Your task to perform on an android device: Show the shopping cart on costco.com. Add razer thresher to the cart on costco.com Image 0: 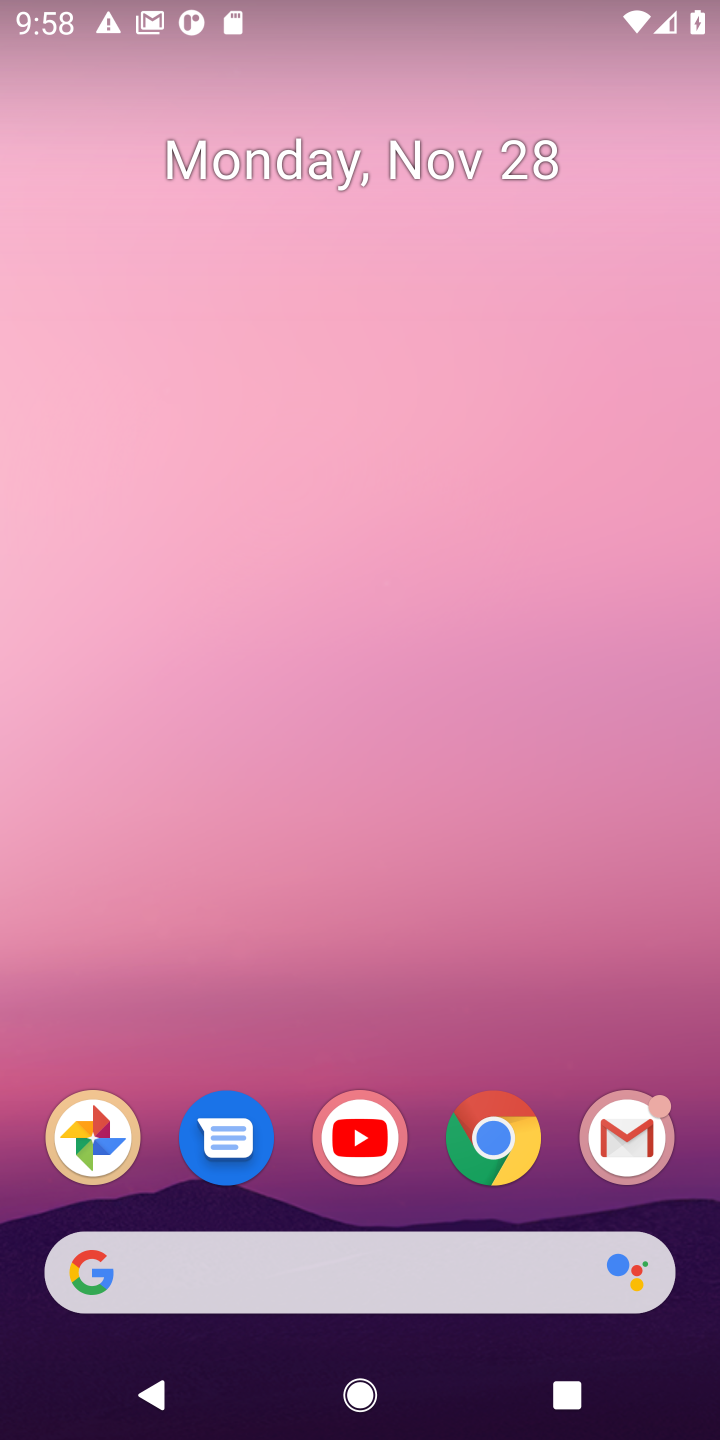
Step 0: click (507, 1129)
Your task to perform on an android device: Show the shopping cart on costco.com. Add razer thresher to the cart on costco.com Image 1: 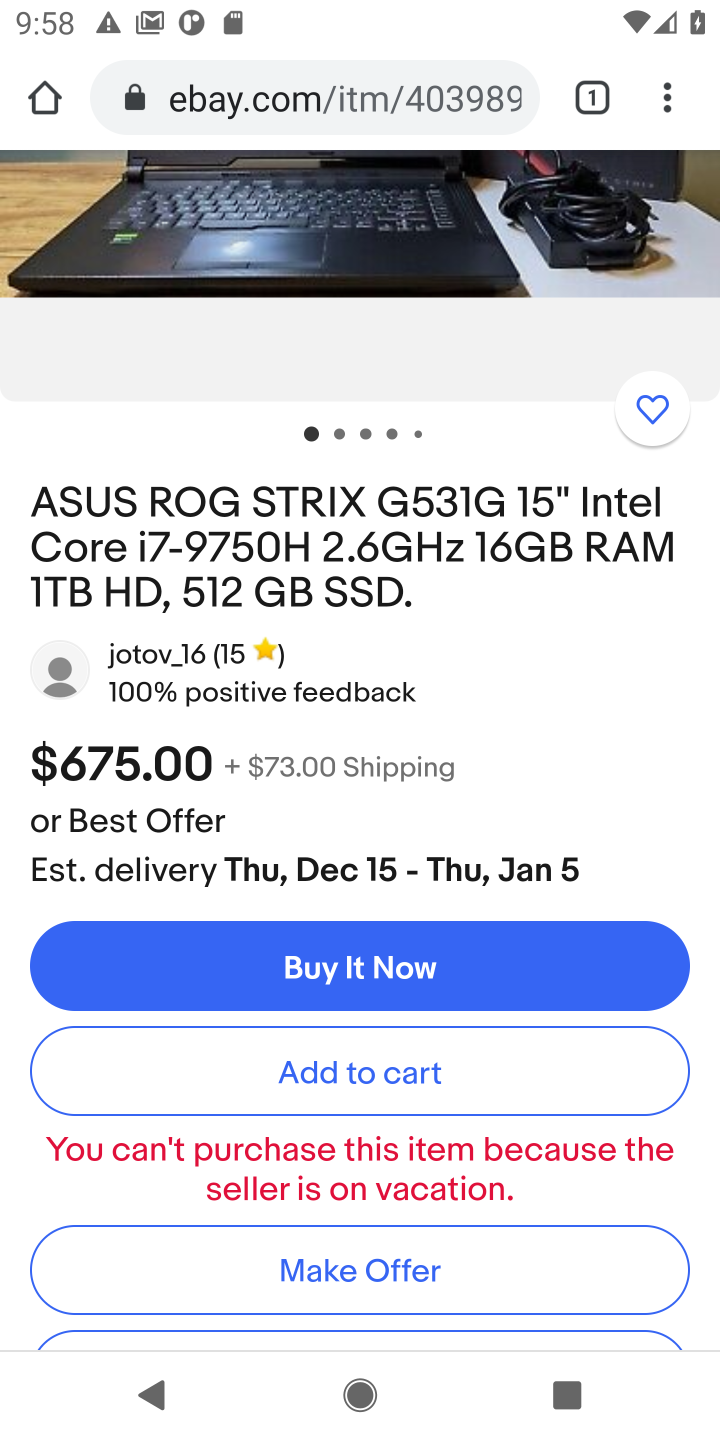
Step 1: click (339, 107)
Your task to perform on an android device: Show the shopping cart on costco.com. Add razer thresher to the cart on costco.com Image 2: 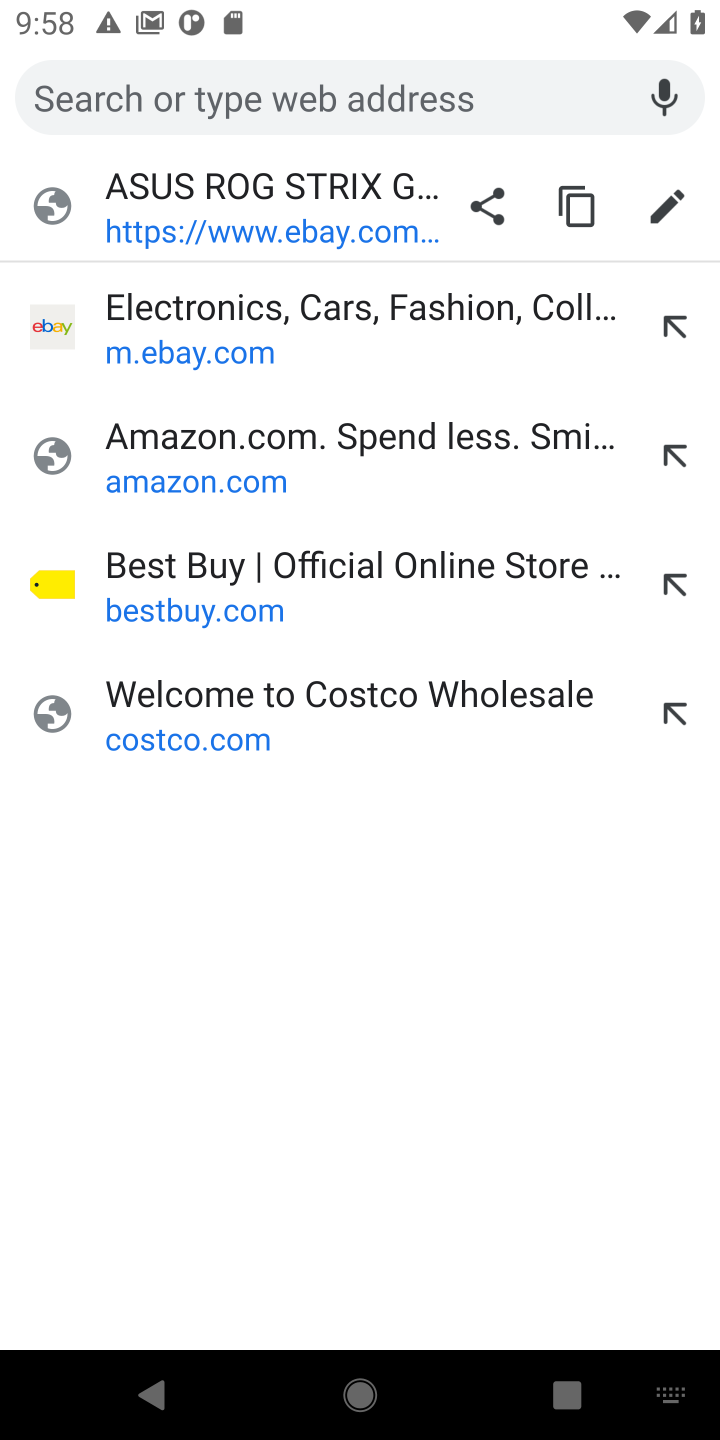
Step 2: click (230, 746)
Your task to perform on an android device: Show the shopping cart on costco.com. Add razer thresher to the cart on costco.com Image 3: 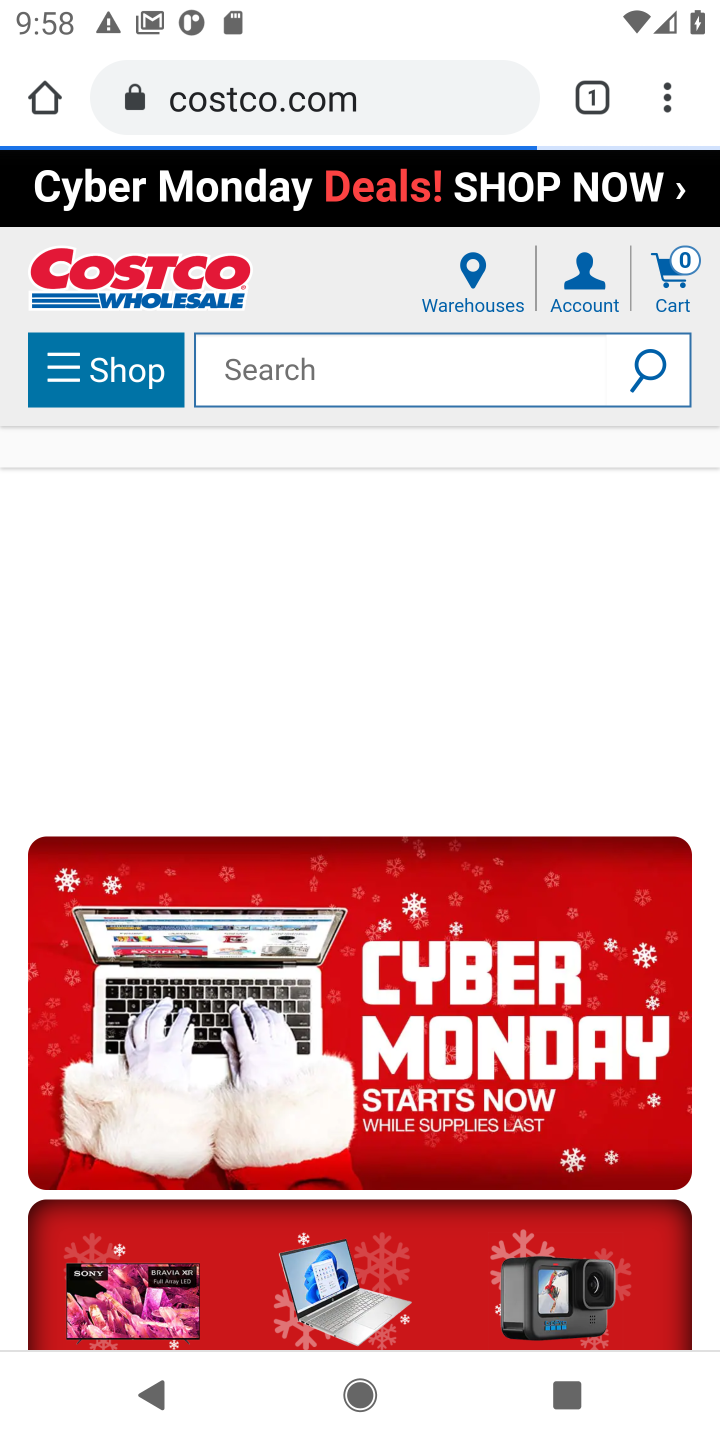
Step 3: click (660, 276)
Your task to perform on an android device: Show the shopping cart on costco.com. Add razer thresher to the cart on costco.com Image 4: 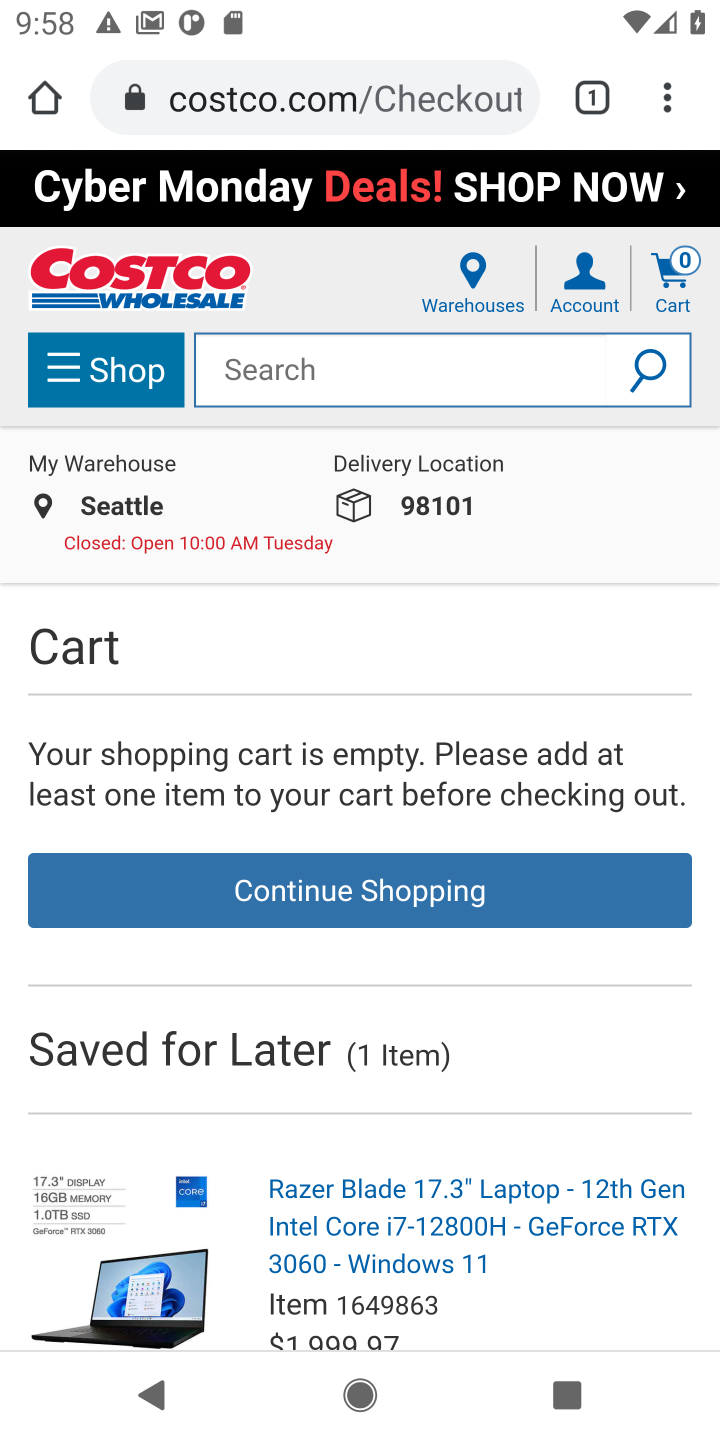
Step 4: click (258, 372)
Your task to perform on an android device: Show the shopping cart on costco.com. Add razer thresher to the cart on costco.com Image 5: 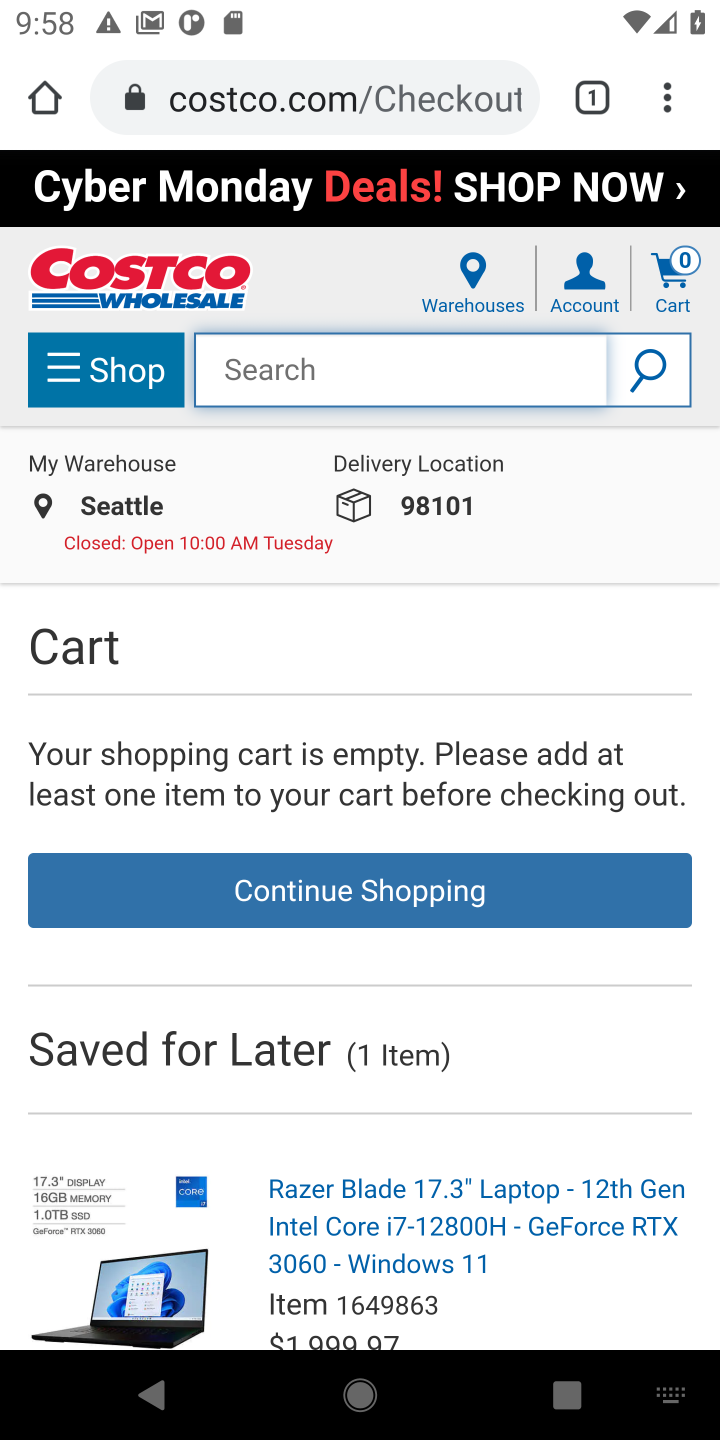
Step 5: type "razer thresher "
Your task to perform on an android device: Show the shopping cart on costco.com. Add razer thresher to the cart on costco.com Image 6: 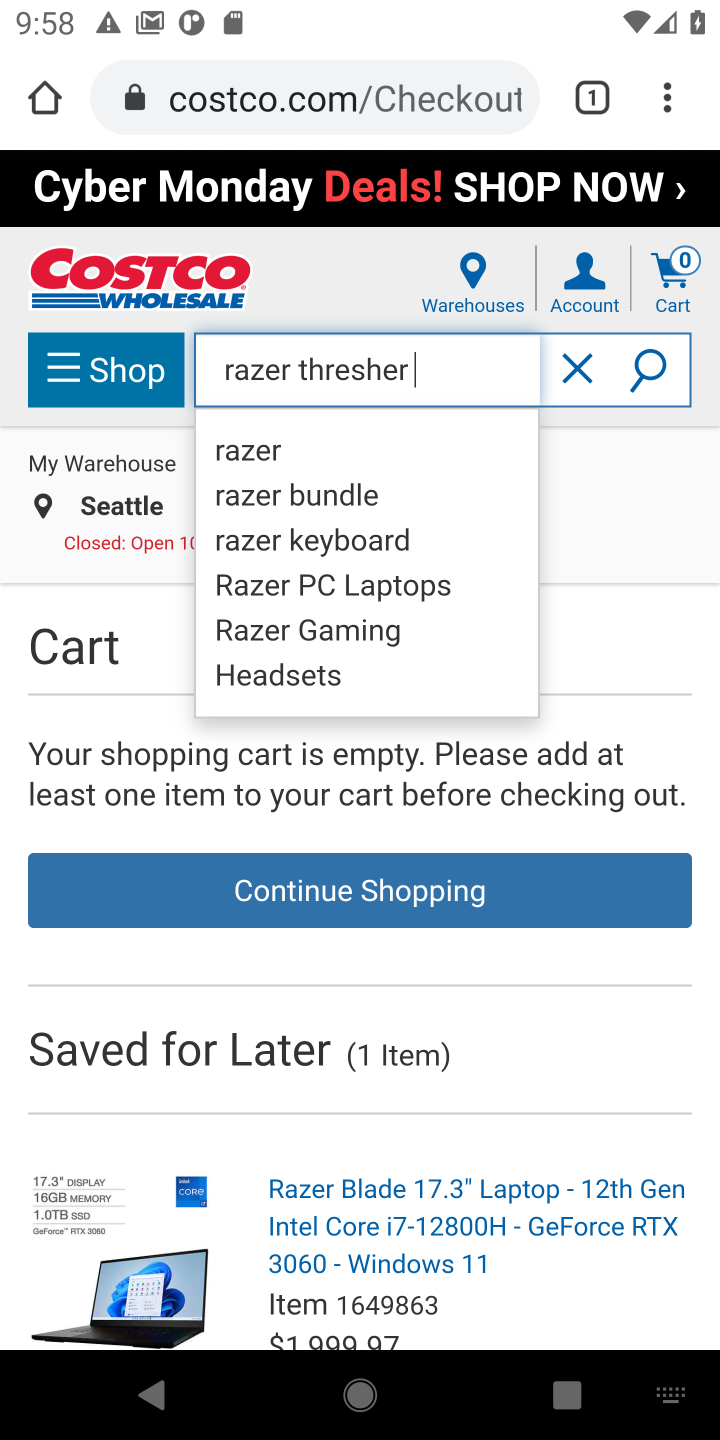
Step 6: click (637, 387)
Your task to perform on an android device: Show the shopping cart on costco.com. Add razer thresher to the cart on costco.com Image 7: 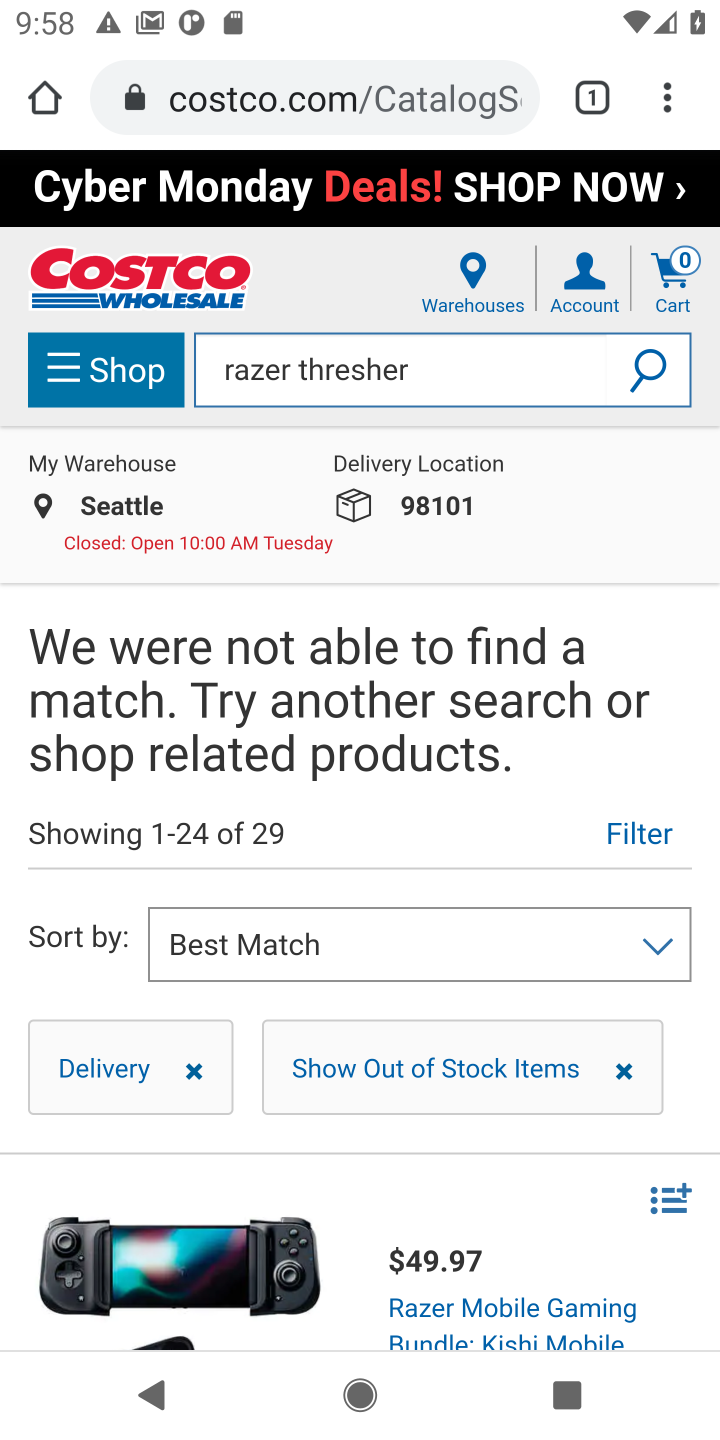
Step 7: task complete